Your task to perform on an android device: Turn on the flashlight Image 0: 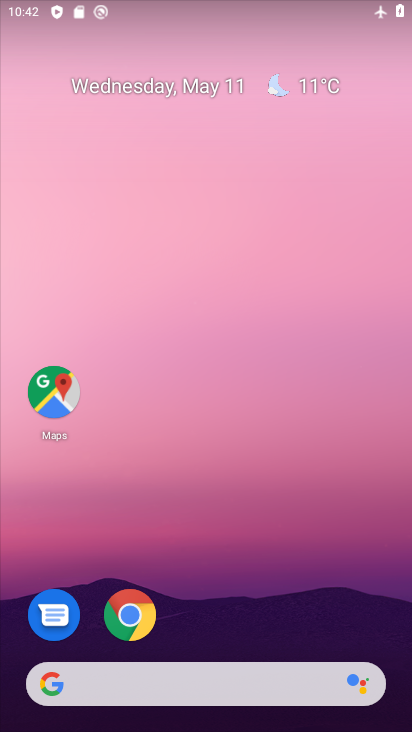
Step 0: drag from (186, 579) to (254, 59)
Your task to perform on an android device: Turn on the flashlight Image 1: 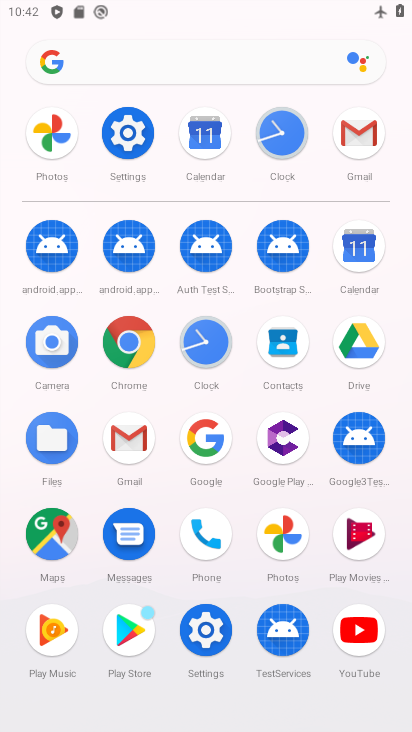
Step 1: click (128, 122)
Your task to perform on an android device: Turn on the flashlight Image 2: 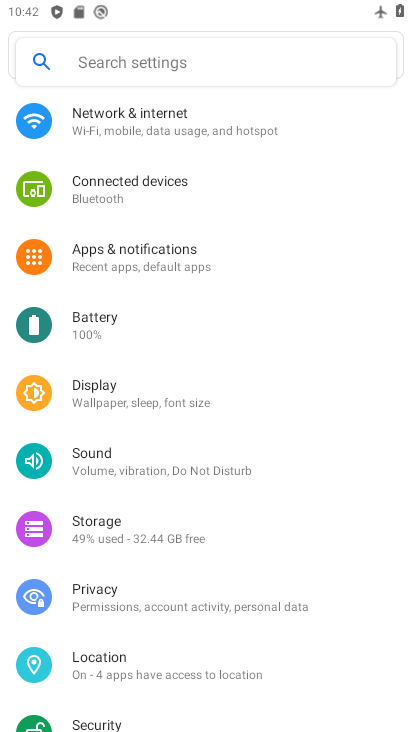
Step 2: drag from (219, 152) to (209, 553)
Your task to perform on an android device: Turn on the flashlight Image 3: 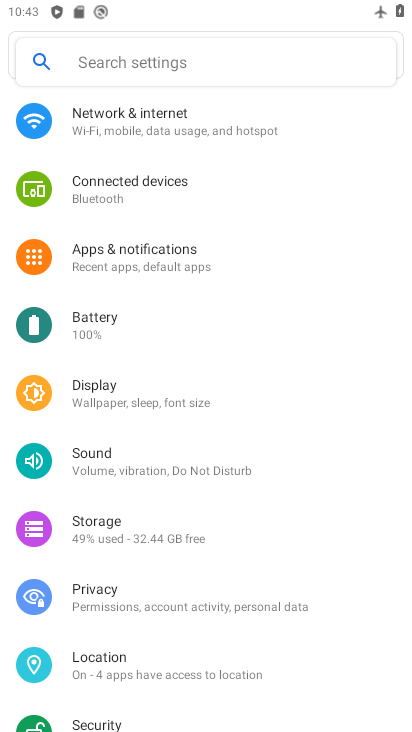
Step 3: click (119, 391)
Your task to perform on an android device: Turn on the flashlight Image 4: 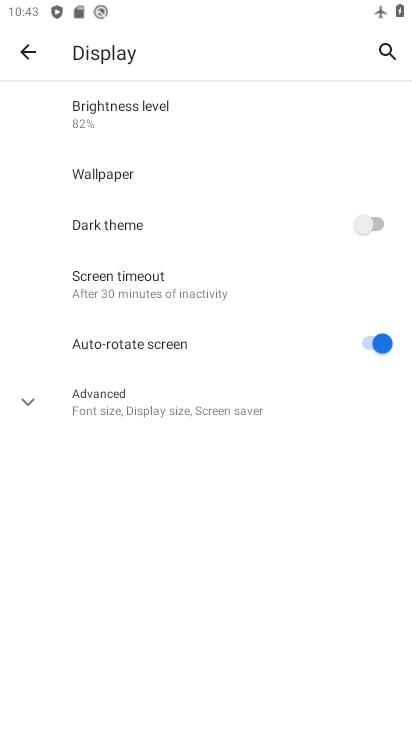
Step 4: click (158, 287)
Your task to perform on an android device: Turn on the flashlight Image 5: 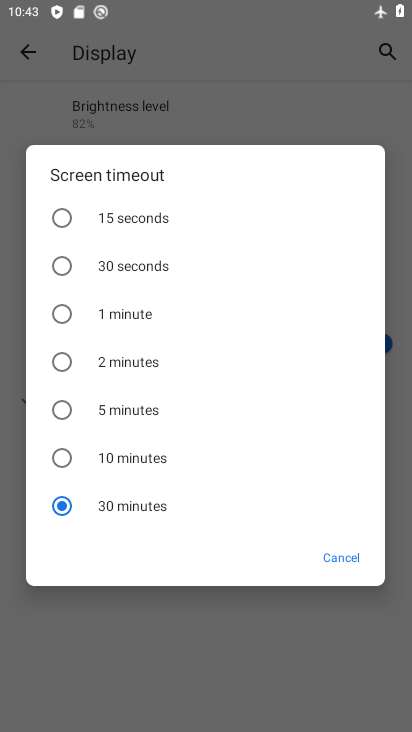
Step 5: task complete